Your task to perform on an android device: Clear the shopping cart on amazon. Add razer blackwidow to the cart on amazon, then select checkout. Image 0: 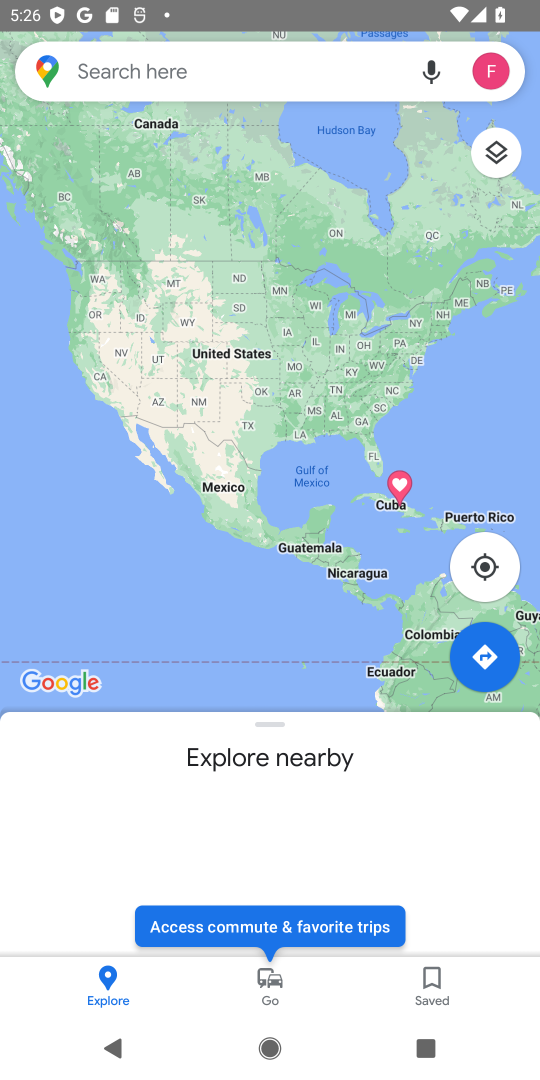
Step 0: press home button
Your task to perform on an android device: Clear the shopping cart on amazon. Add razer blackwidow to the cart on amazon, then select checkout. Image 1: 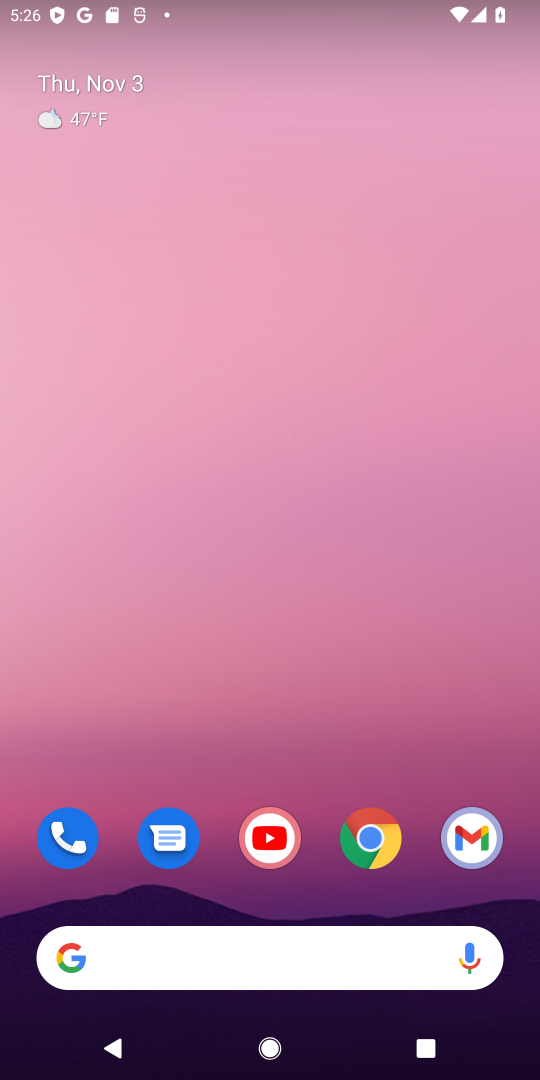
Step 1: click (262, 946)
Your task to perform on an android device: Clear the shopping cart on amazon. Add razer blackwidow to the cart on amazon, then select checkout. Image 2: 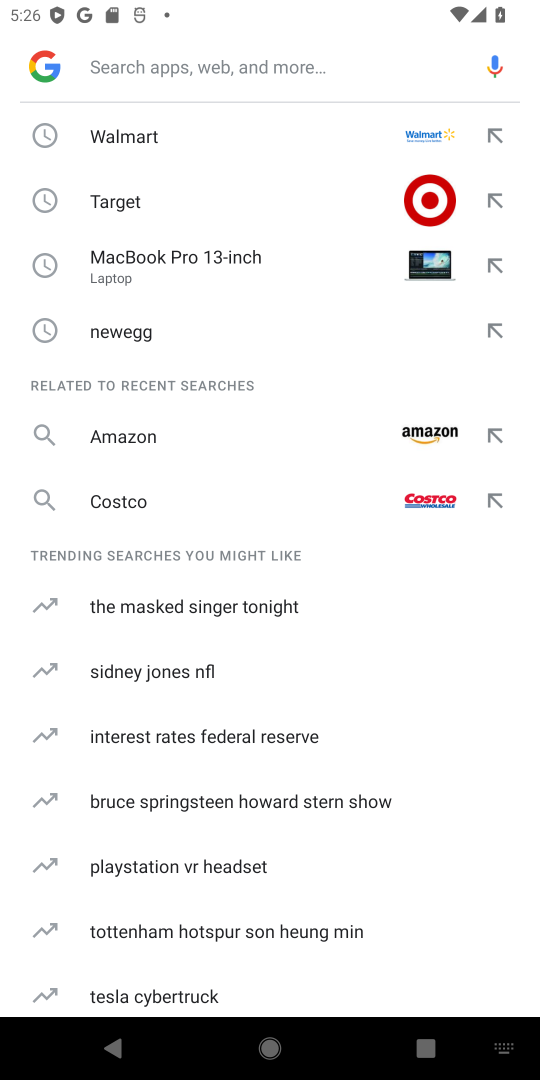
Step 2: type "amazon"
Your task to perform on an android device: Clear the shopping cart on amazon. Add razer blackwidow to the cart on amazon, then select checkout. Image 3: 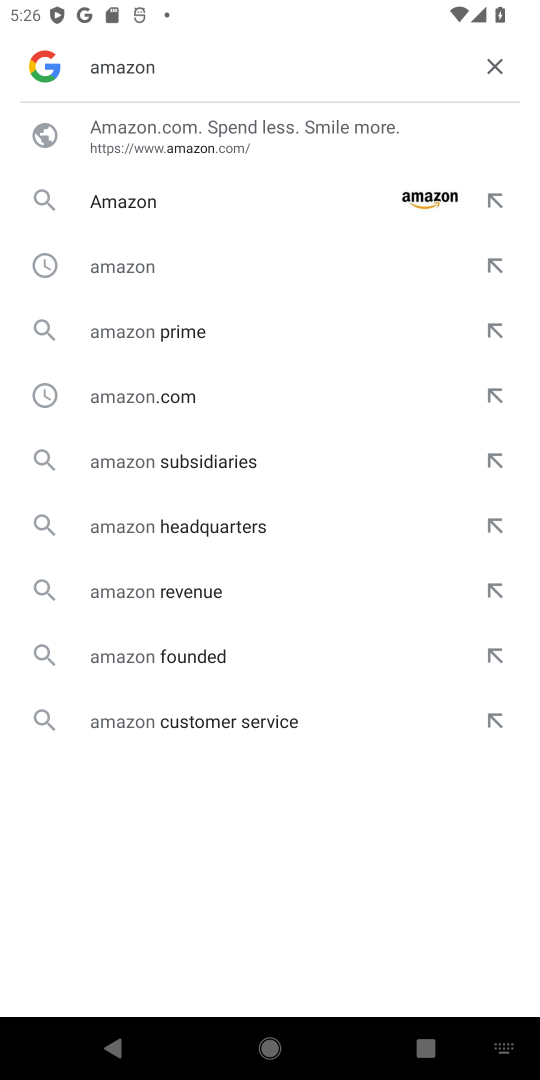
Step 3: click (250, 193)
Your task to perform on an android device: Clear the shopping cart on amazon. Add razer blackwidow to the cart on amazon, then select checkout. Image 4: 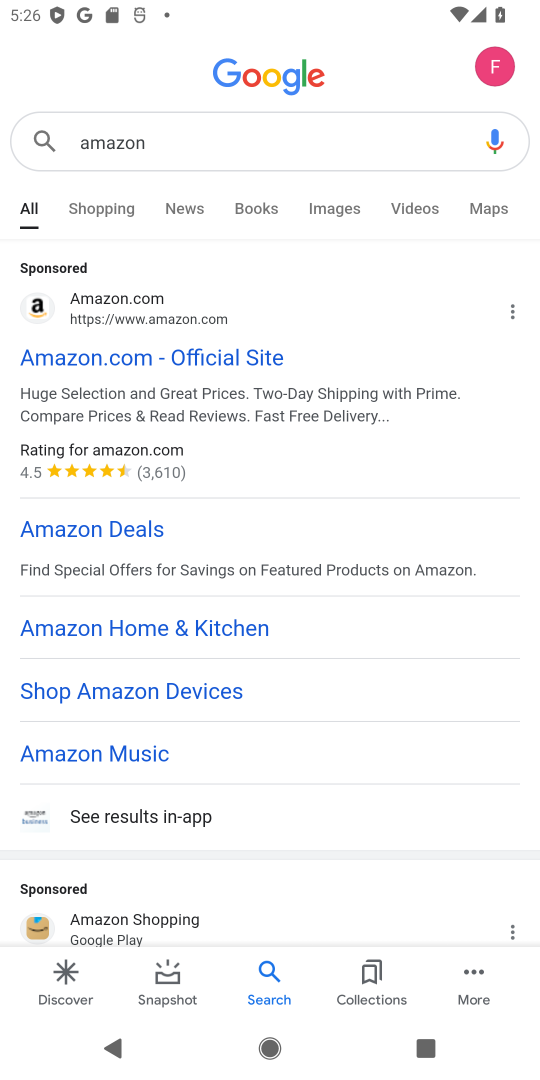
Step 4: click (91, 363)
Your task to perform on an android device: Clear the shopping cart on amazon. Add razer blackwidow to the cart on amazon, then select checkout. Image 5: 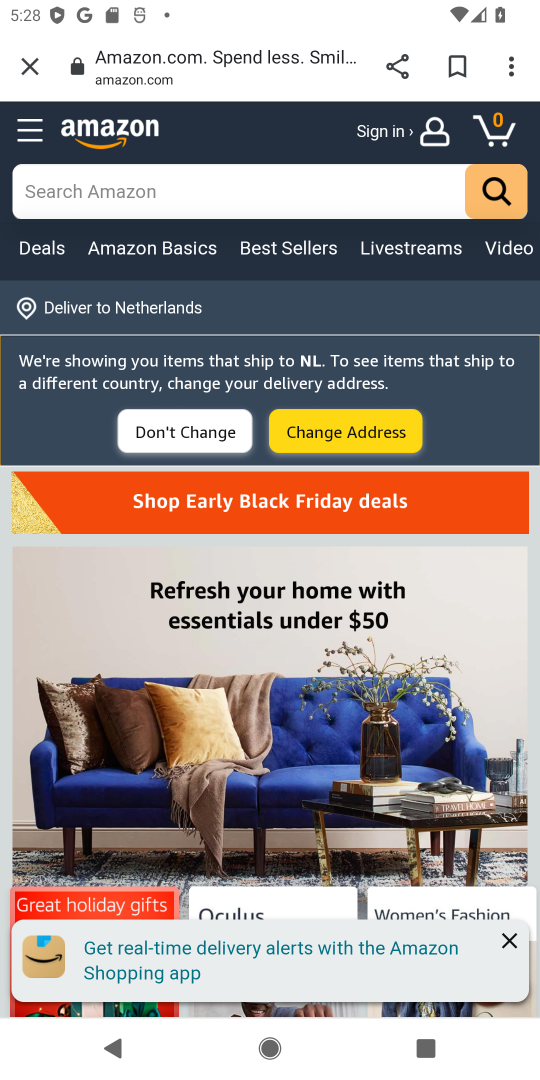
Step 5: click (499, 129)
Your task to perform on an android device: Clear the shopping cart on amazon. Add razer blackwidow to the cart on amazon, then select checkout. Image 6: 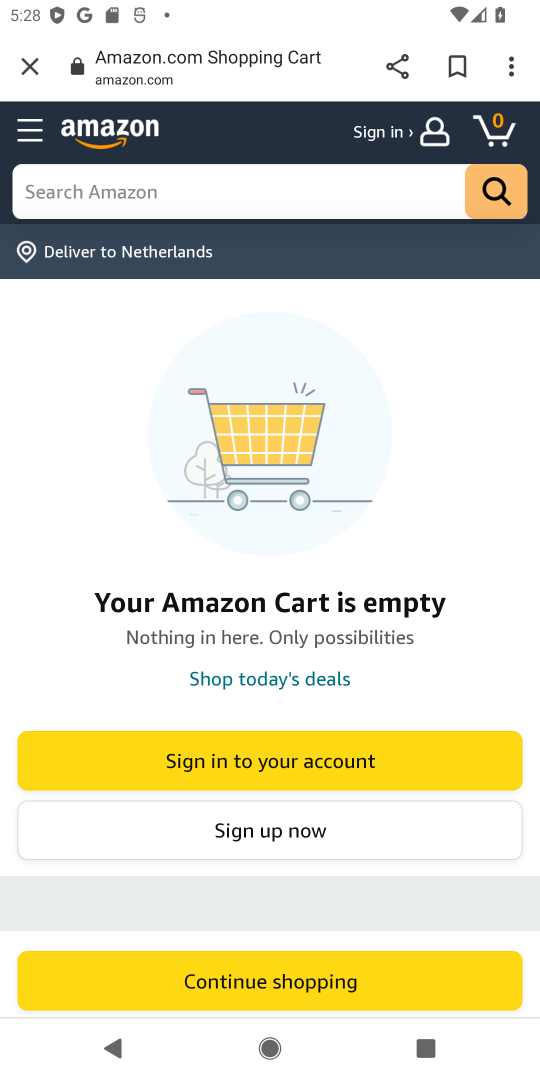
Step 6: click (234, 183)
Your task to perform on an android device: Clear the shopping cart on amazon. Add razer blackwidow to the cart on amazon, then select checkout. Image 7: 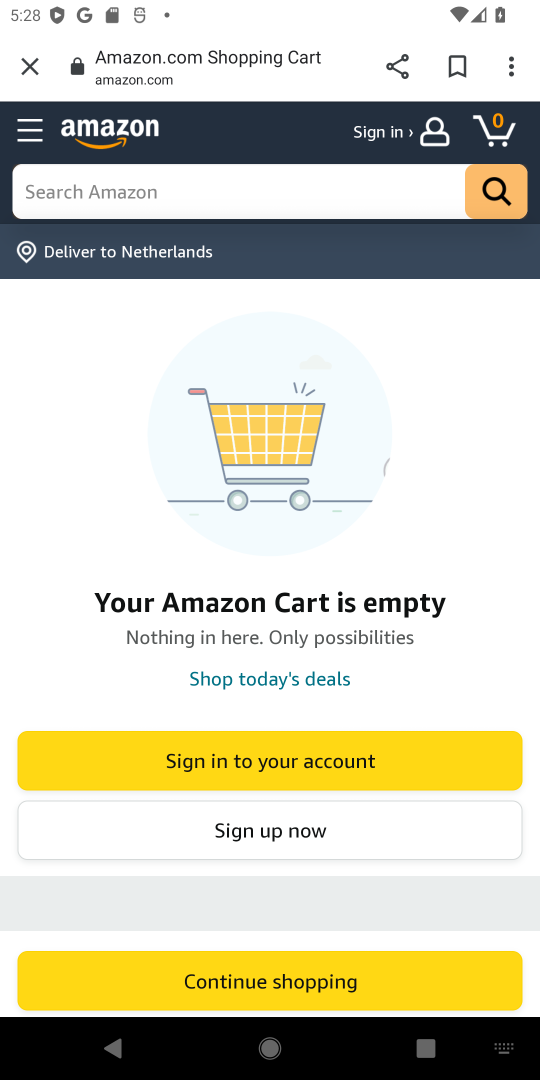
Step 7: type " razer blackwidow "
Your task to perform on an android device: Clear the shopping cart on amazon. Add razer blackwidow to the cart on amazon, then select checkout. Image 8: 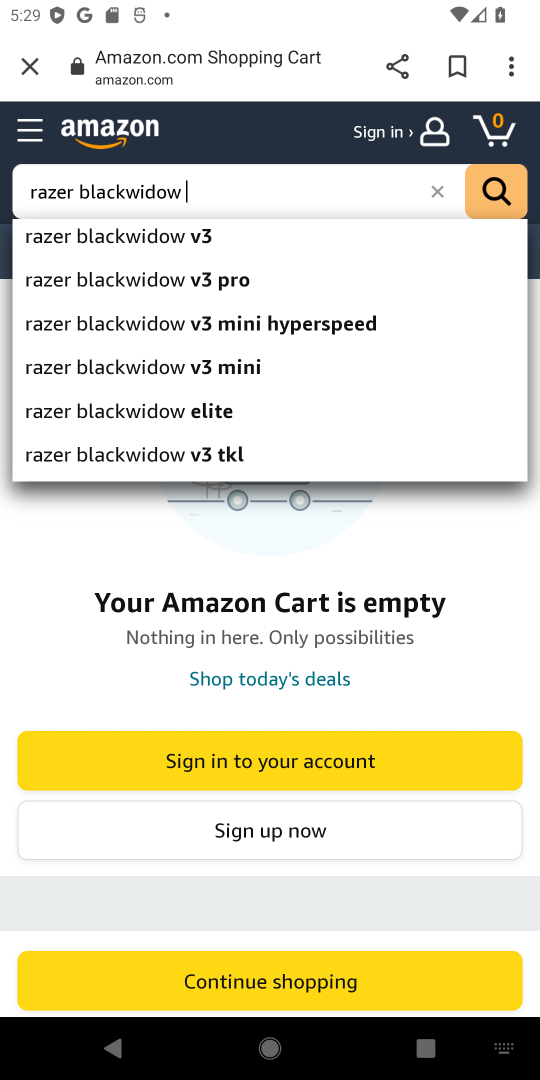
Step 8: click (183, 230)
Your task to perform on an android device: Clear the shopping cart on amazon. Add razer blackwidow to the cart on amazon, then select checkout. Image 9: 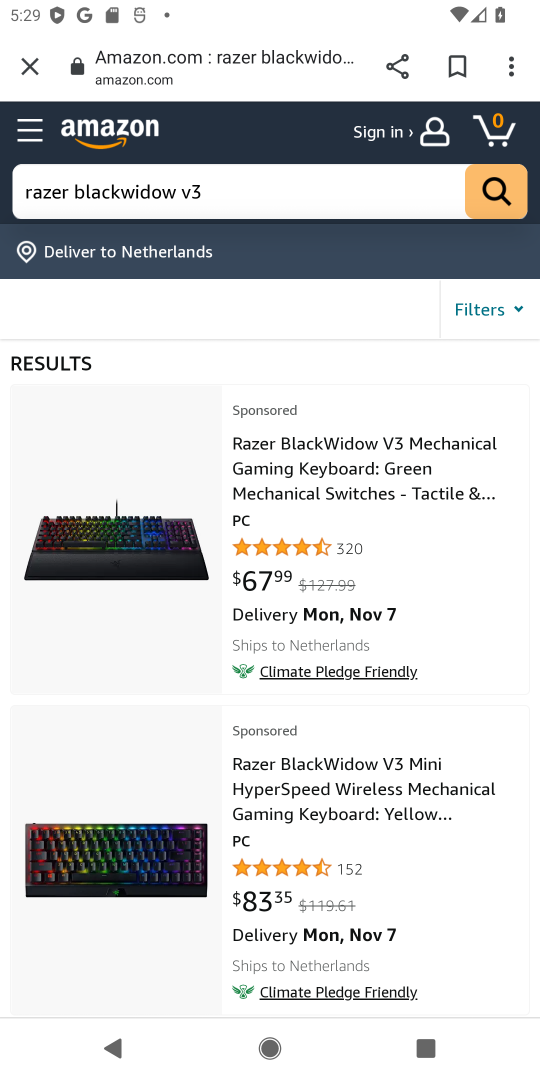
Step 9: drag from (336, 681) to (339, 590)
Your task to perform on an android device: Clear the shopping cart on amazon. Add razer blackwidow to the cart on amazon, then select checkout. Image 10: 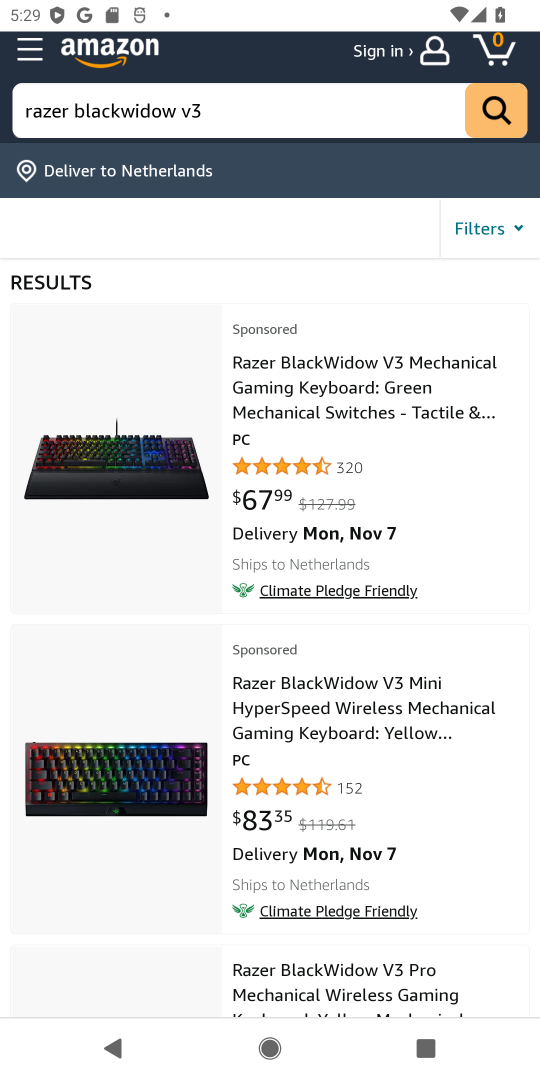
Step 10: click (318, 377)
Your task to perform on an android device: Clear the shopping cart on amazon. Add razer blackwidow to the cart on amazon, then select checkout. Image 11: 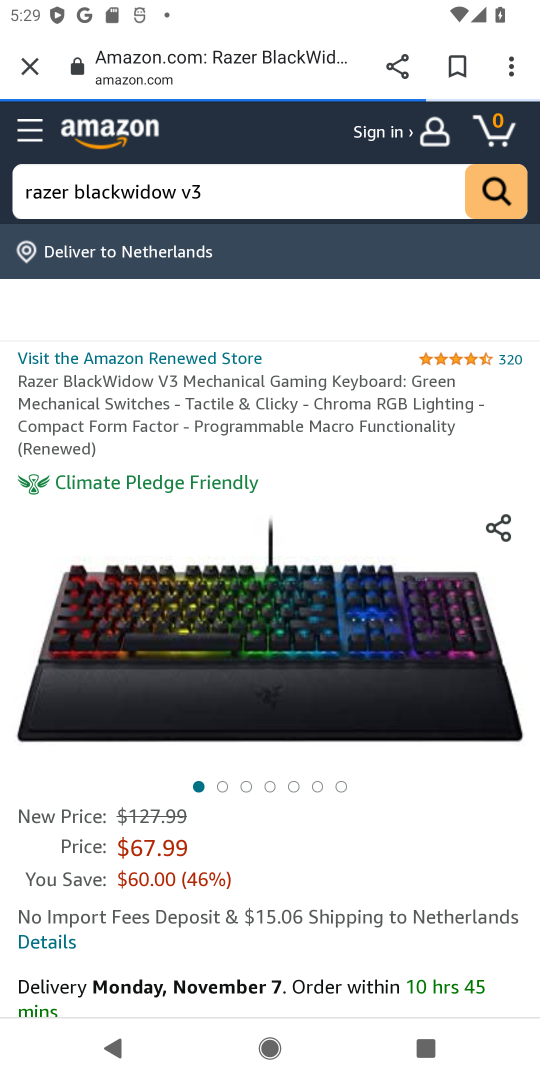
Step 11: drag from (302, 754) to (428, 171)
Your task to perform on an android device: Clear the shopping cart on amazon. Add razer blackwidow to the cart on amazon, then select checkout. Image 12: 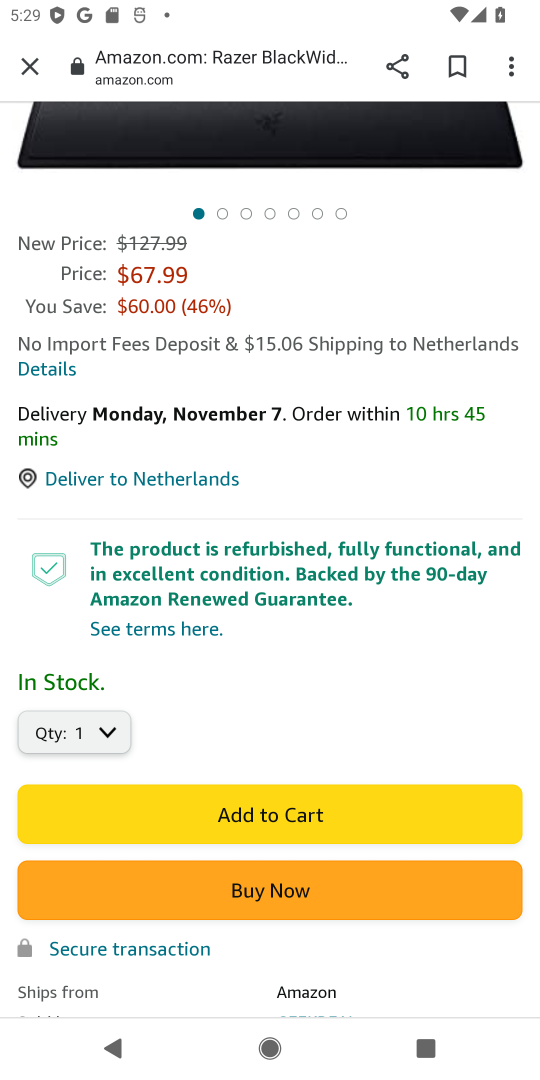
Step 12: click (266, 814)
Your task to perform on an android device: Clear the shopping cart on amazon. Add razer blackwidow to the cart on amazon, then select checkout. Image 13: 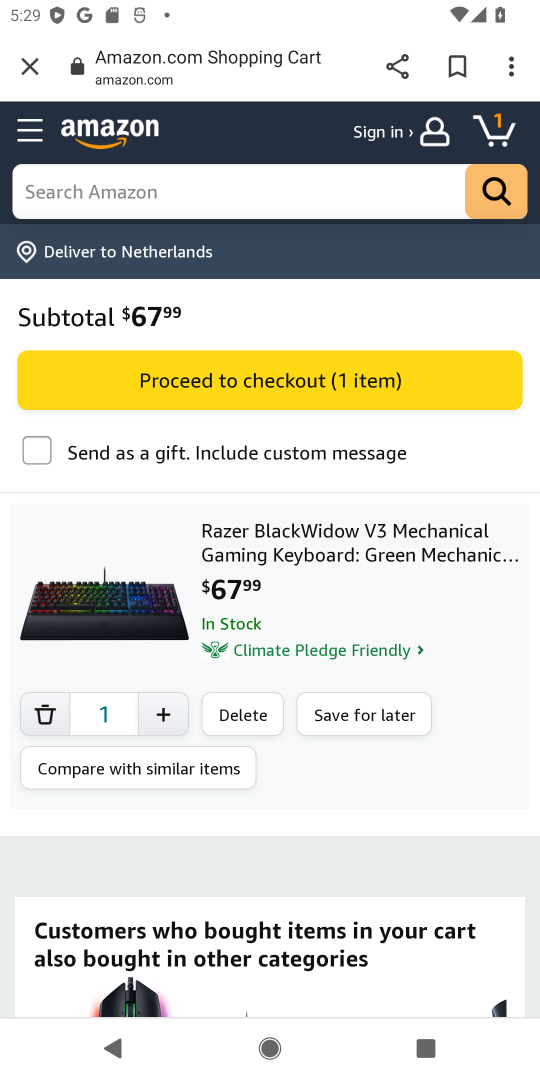
Step 13: click (377, 397)
Your task to perform on an android device: Clear the shopping cart on amazon. Add razer blackwidow to the cart on amazon, then select checkout. Image 14: 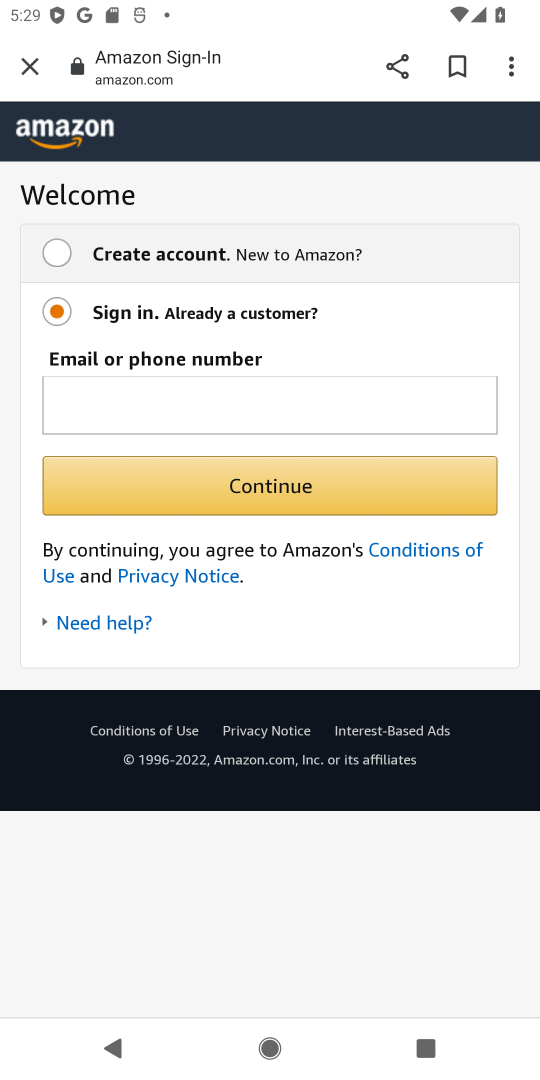
Step 14: task complete